Your task to perform on an android device: Go to network settings Image 0: 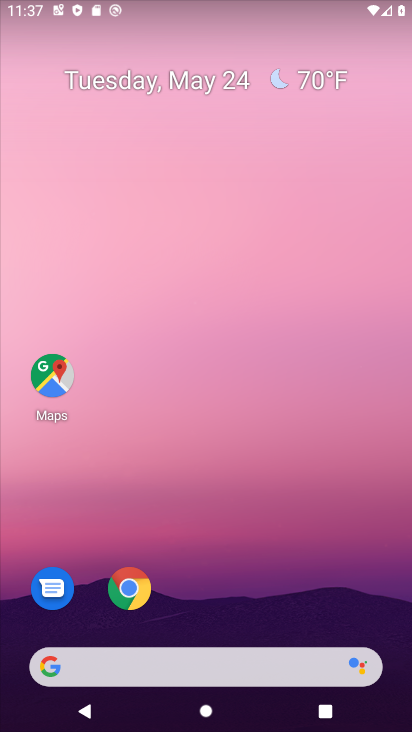
Step 0: press home button
Your task to perform on an android device: Go to network settings Image 1: 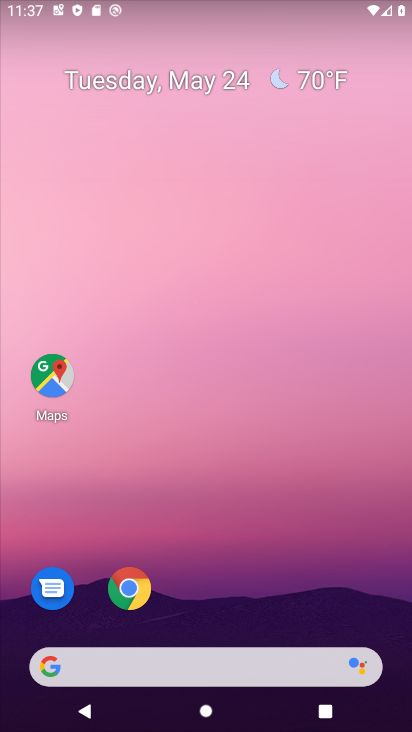
Step 1: drag from (205, 631) to (154, 139)
Your task to perform on an android device: Go to network settings Image 2: 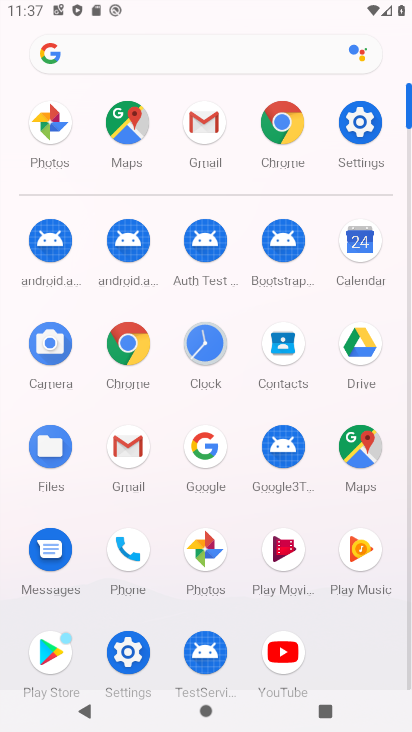
Step 2: click (358, 115)
Your task to perform on an android device: Go to network settings Image 3: 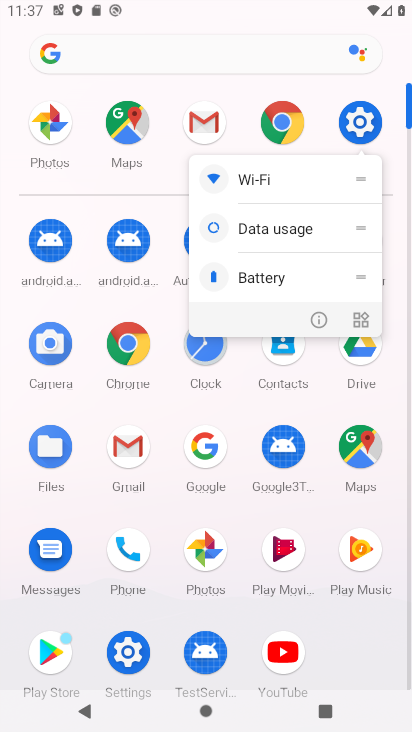
Step 3: click (359, 116)
Your task to perform on an android device: Go to network settings Image 4: 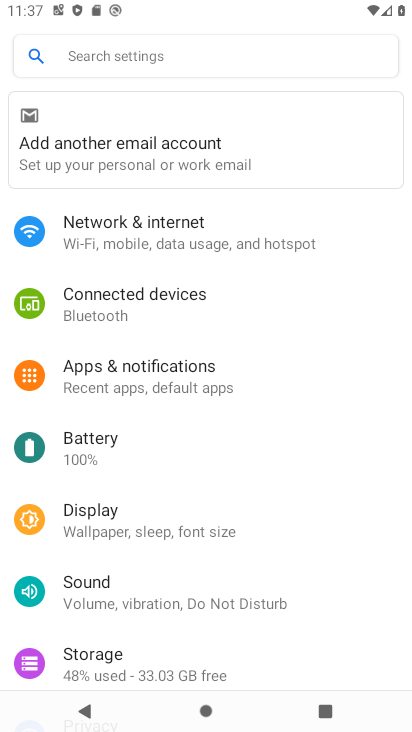
Step 4: click (145, 226)
Your task to perform on an android device: Go to network settings Image 5: 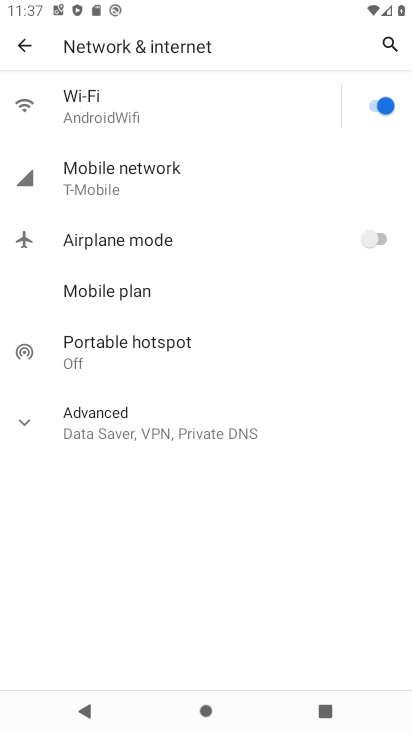
Step 5: click (28, 415)
Your task to perform on an android device: Go to network settings Image 6: 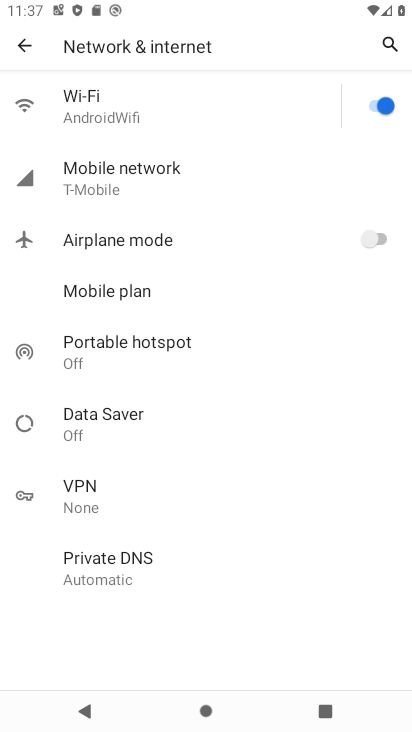
Step 6: task complete